Your task to perform on an android device: Is it going to rain today? Image 0: 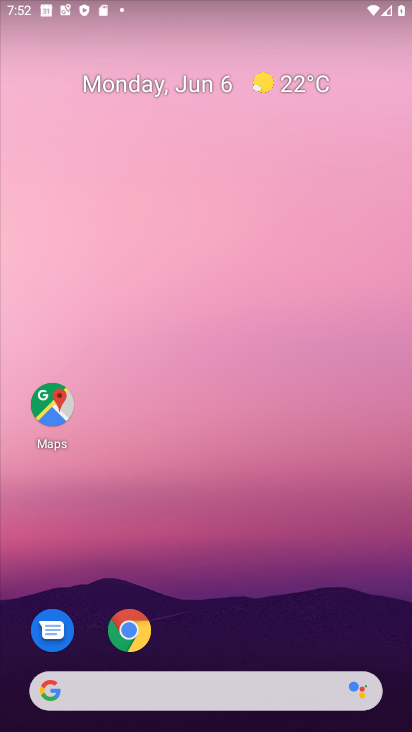
Step 0: click (257, 705)
Your task to perform on an android device: Is it going to rain today? Image 1: 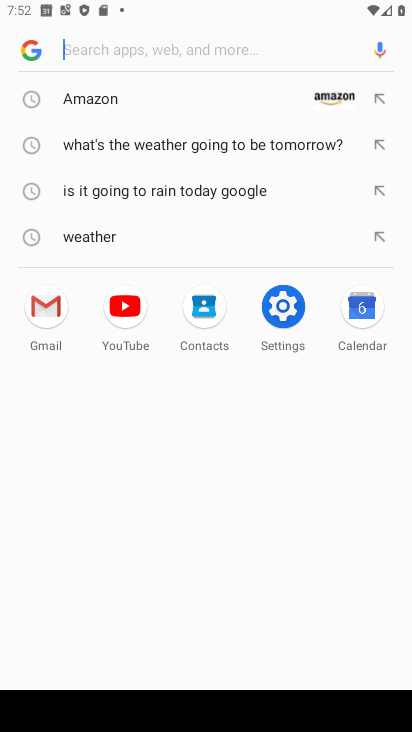
Step 1: type "weather today"
Your task to perform on an android device: Is it going to rain today? Image 2: 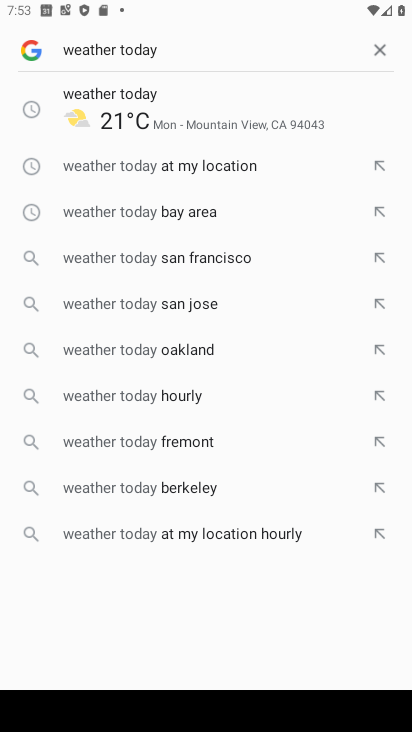
Step 2: click (94, 90)
Your task to perform on an android device: Is it going to rain today? Image 3: 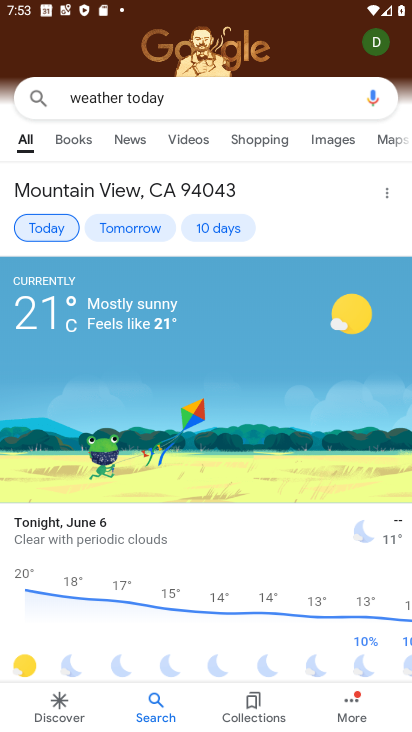
Step 3: task complete